Your task to perform on an android device: Open calendar and show me the third week of next month Image 0: 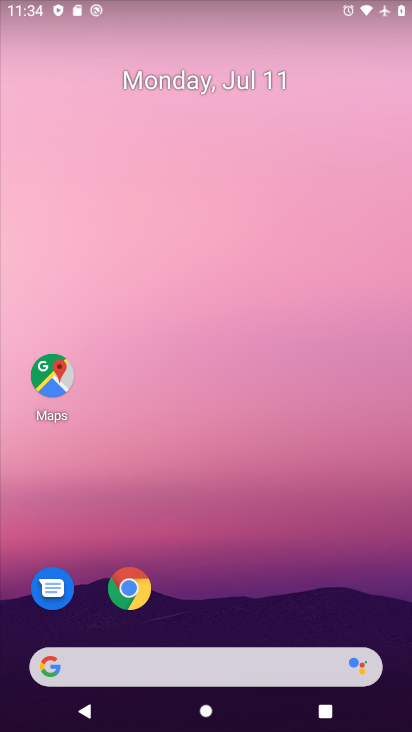
Step 0: drag from (267, 537) to (321, 179)
Your task to perform on an android device: Open calendar and show me the third week of next month Image 1: 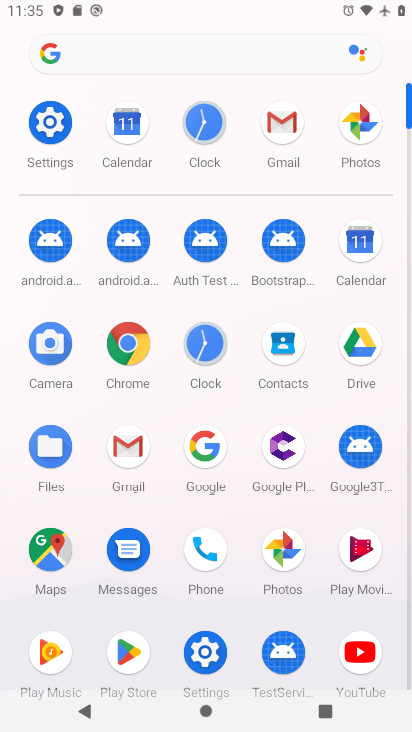
Step 1: click (125, 121)
Your task to perform on an android device: Open calendar and show me the third week of next month Image 2: 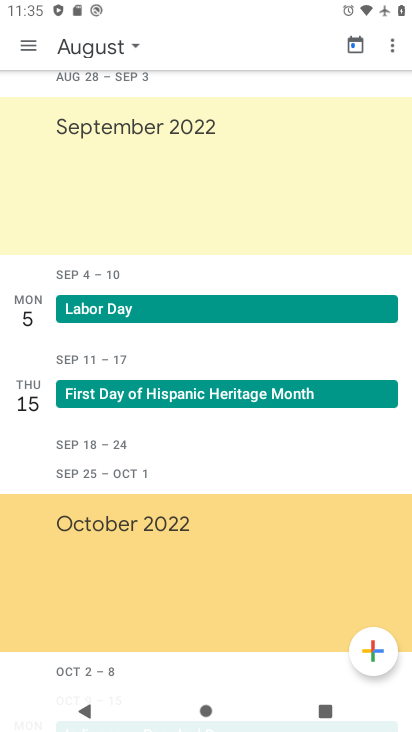
Step 2: click (89, 41)
Your task to perform on an android device: Open calendar and show me the third week of next month Image 3: 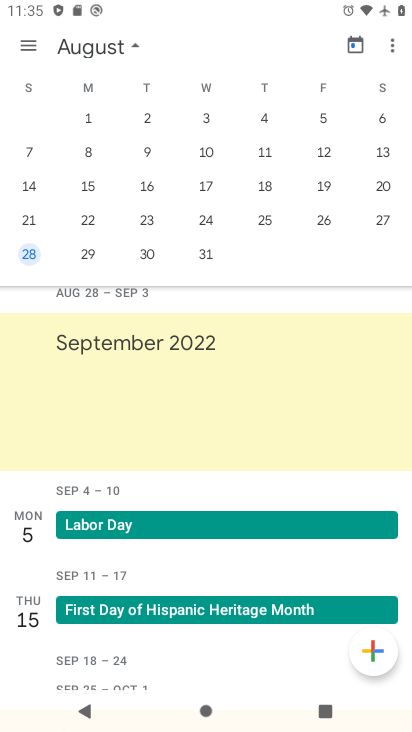
Step 3: drag from (57, 192) to (344, 200)
Your task to perform on an android device: Open calendar and show me the third week of next month Image 4: 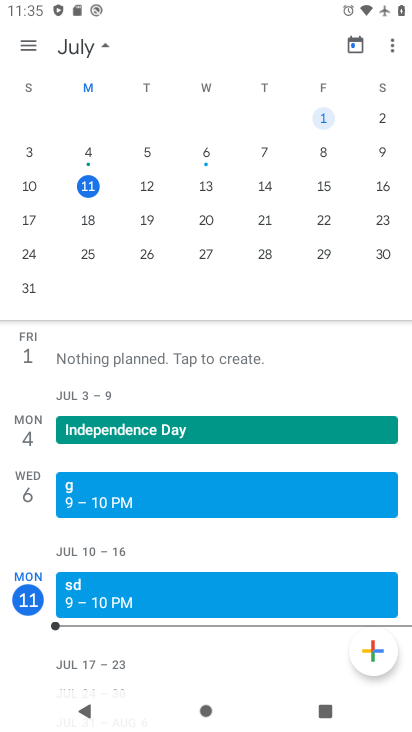
Step 4: drag from (328, 198) to (22, 231)
Your task to perform on an android device: Open calendar and show me the third week of next month Image 5: 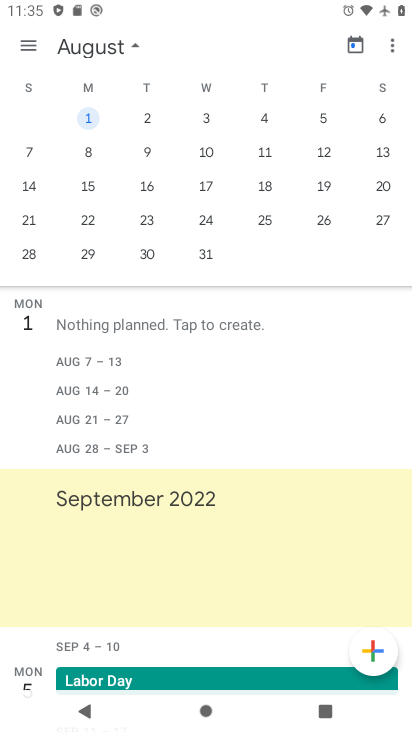
Step 5: click (27, 185)
Your task to perform on an android device: Open calendar and show me the third week of next month Image 6: 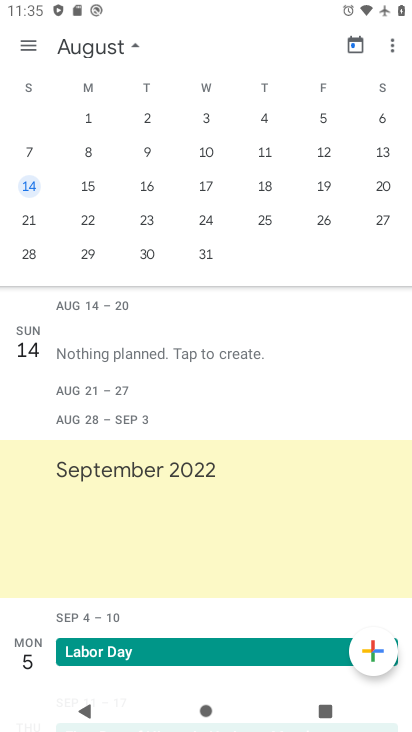
Step 6: click (34, 45)
Your task to perform on an android device: Open calendar and show me the third week of next month Image 7: 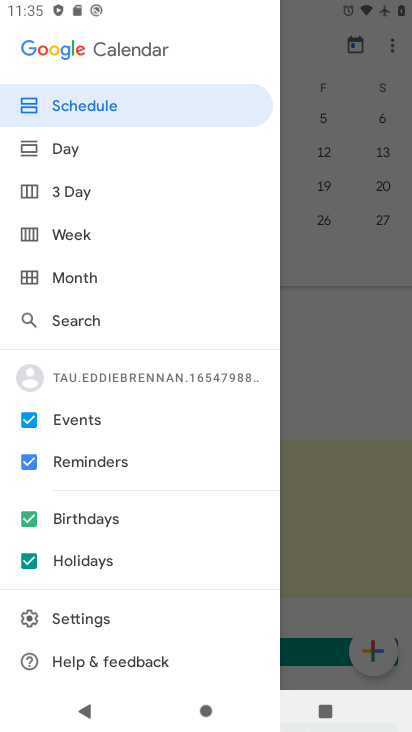
Step 7: click (82, 232)
Your task to perform on an android device: Open calendar and show me the third week of next month Image 8: 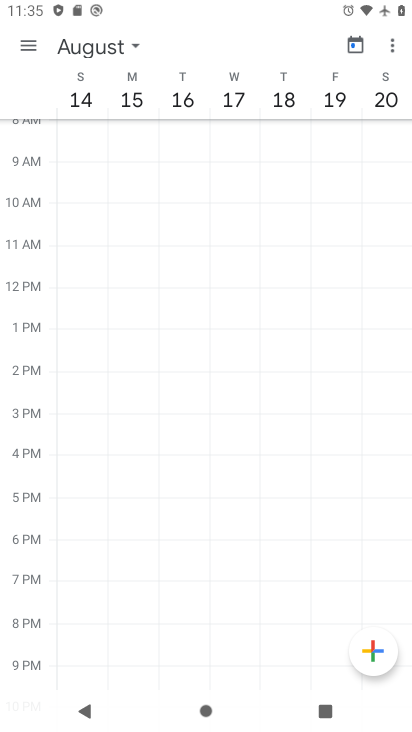
Step 8: task complete